Your task to perform on an android device: Open maps Image 0: 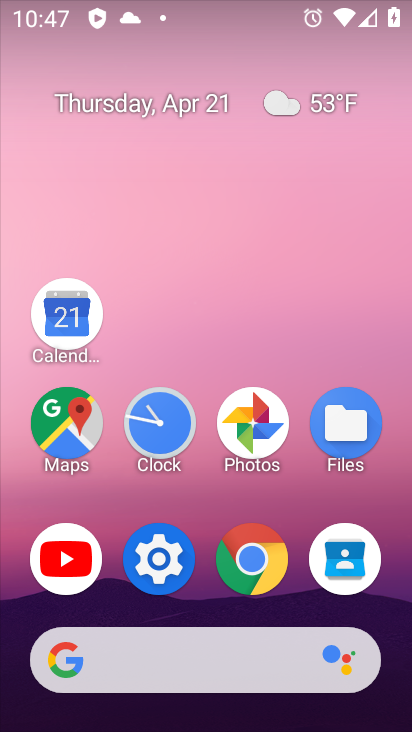
Step 0: click (58, 431)
Your task to perform on an android device: Open maps Image 1: 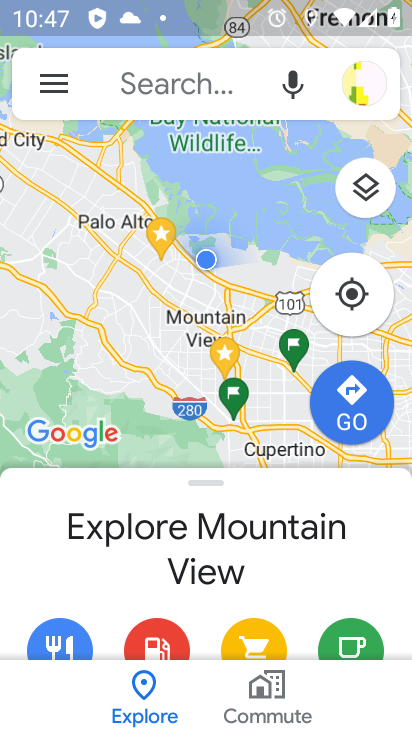
Step 1: task complete